Your task to perform on an android device: Show me recent news Image 0: 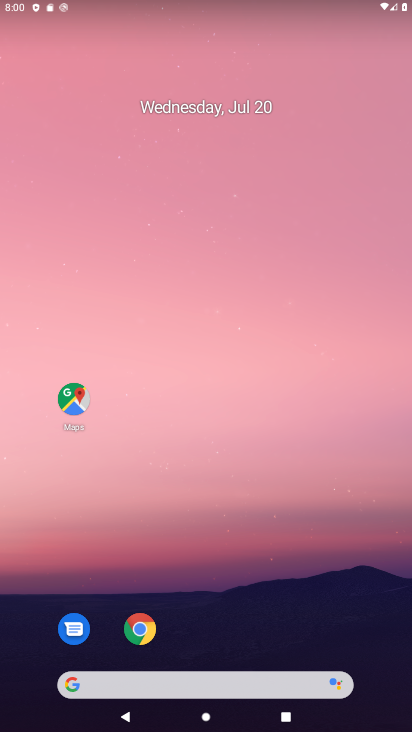
Step 0: drag from (215, 638) to (200, 112)
Your task to perform on an android device: Show me recent news Image 1: 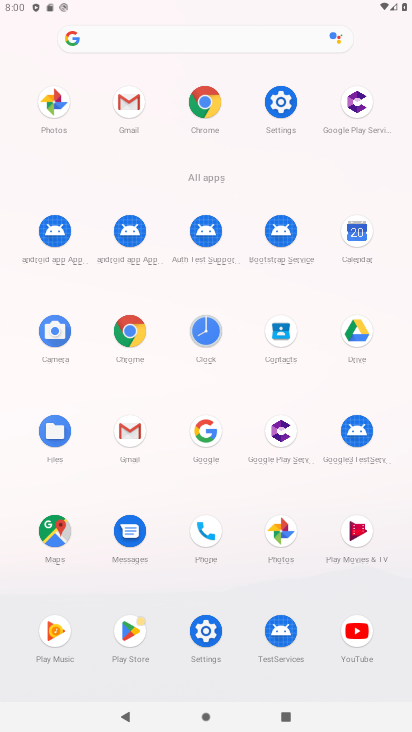
Step 1: click (225, 443)
Your task to perform on an android device: Show me recent news Image 2: 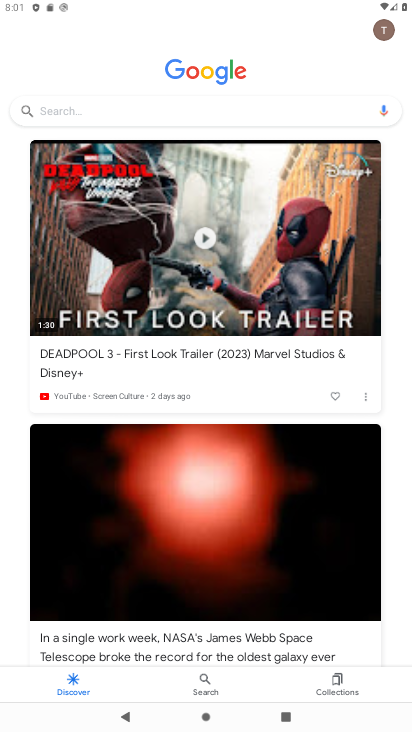
Step 2: click (127, 104)
Your task to perform on an android device: Show me recent news Image 3: 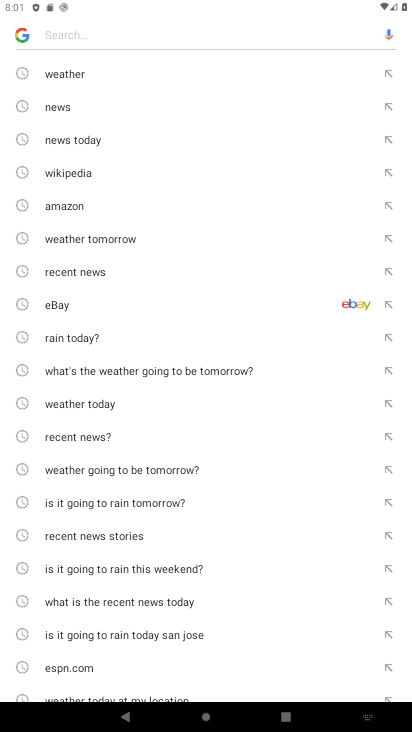
Step 3: click (82, 108)
Your task to perform on an android device: Show me recent news Image 4: 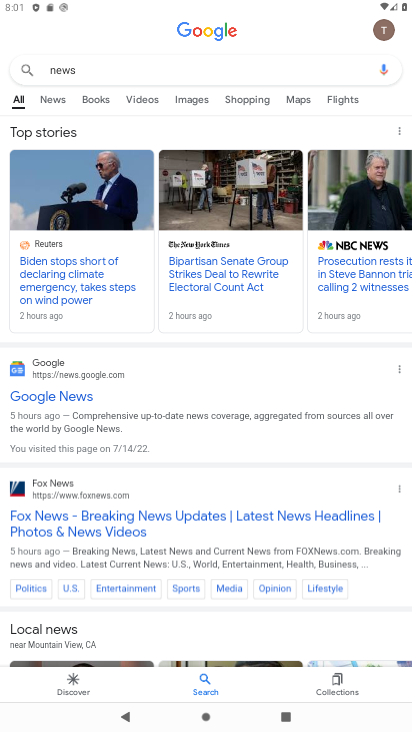
Step 4: click (55, 103)
Your task to perform on an android device: Show me recent news Image 5: 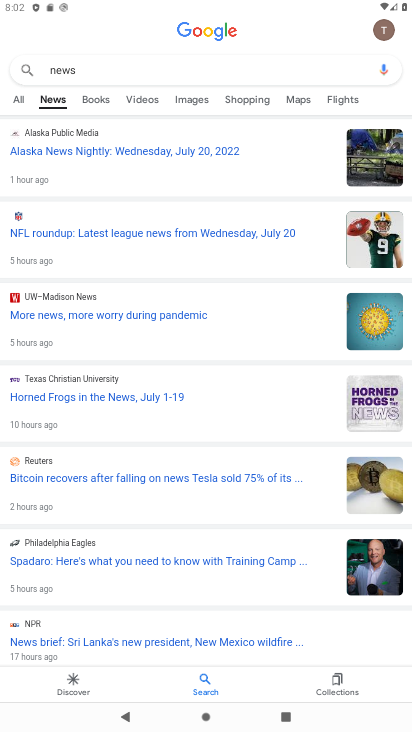
Step 5: task complete